Your task to perform on an android device: Go to location settings Image 0: 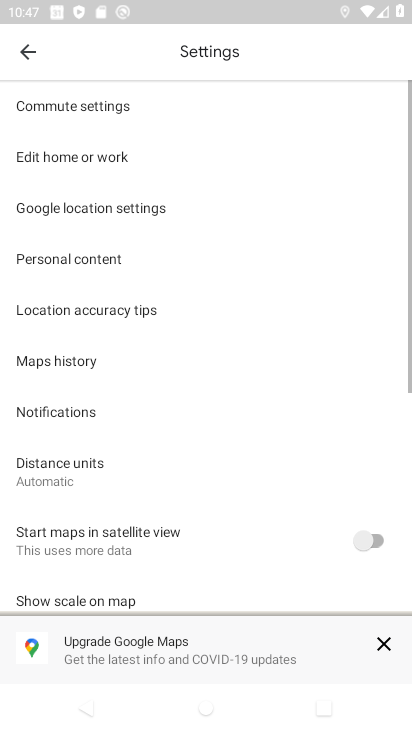
Step 0: press home button
Your task to perform on an android device: Go to location settings Image 1: 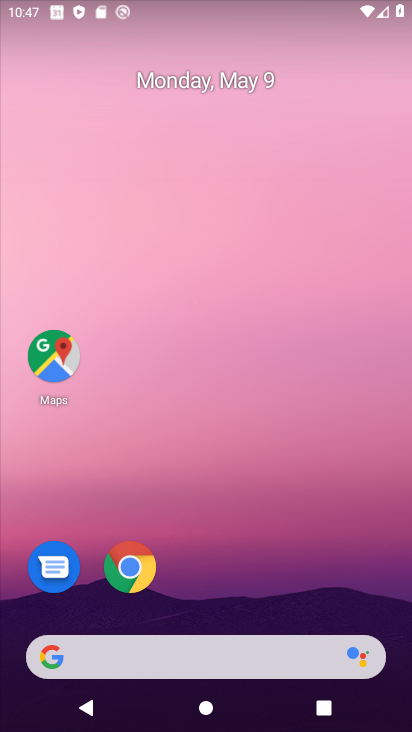
Step 1: drag from (387, 619) to (282, 24)
Your task to perform on an android device: Go to location settings Image 2: 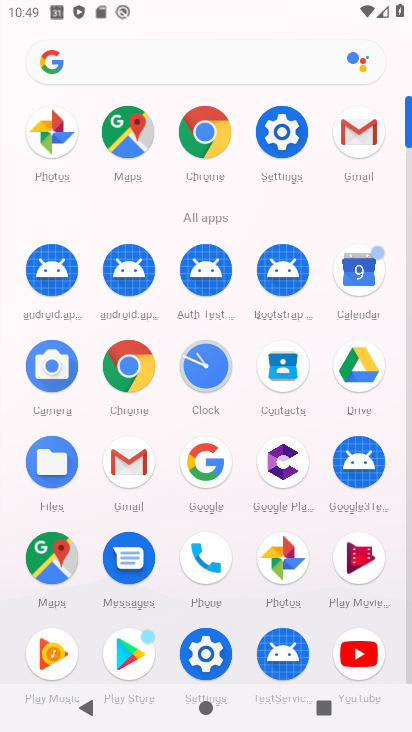
Step 2: click (207, 641)
Your task to perform on an android device: Go to location settings Image 3: 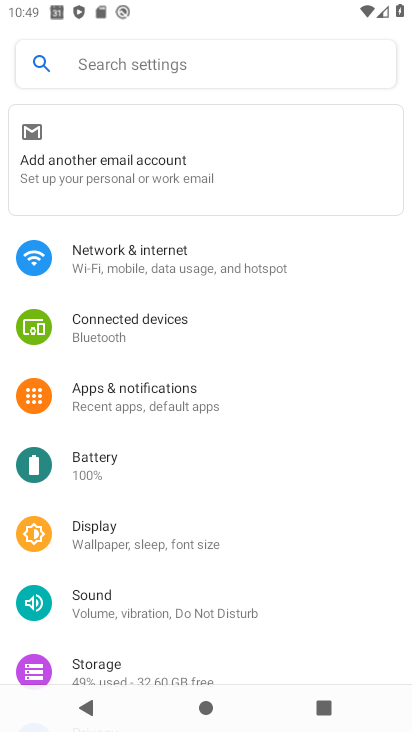
Step 3: drag from (196, 632) to (244, 248)
Your task to perform on an android device: Go to location settings Image 4: 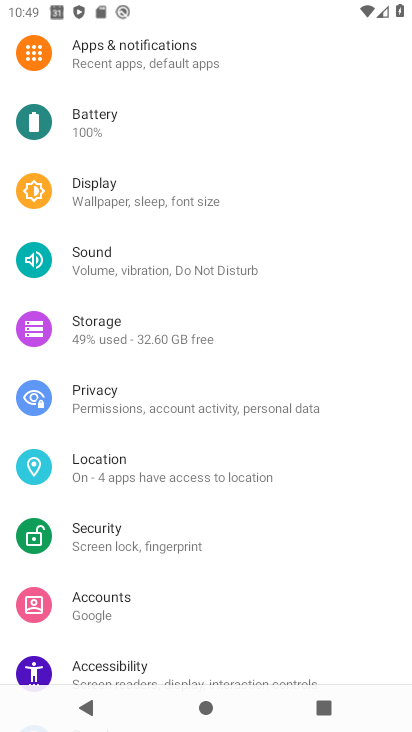
Step 4: click (146, 469)
Your task to perform on an android device: Go to location settings Image 5: 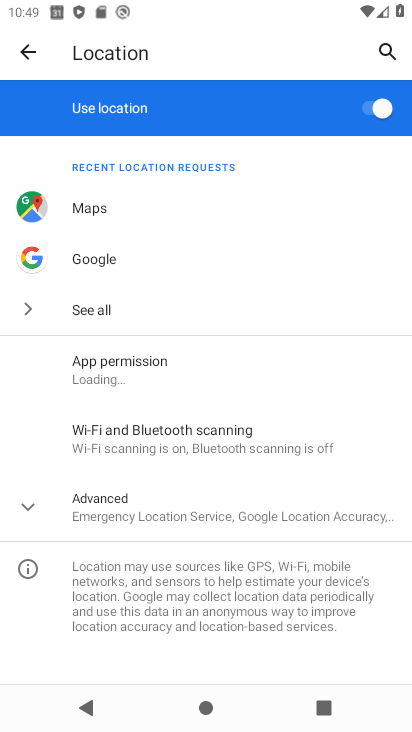
Step 5: task complete